Your task to perform on an android device: turn on airplane mode Image 0: 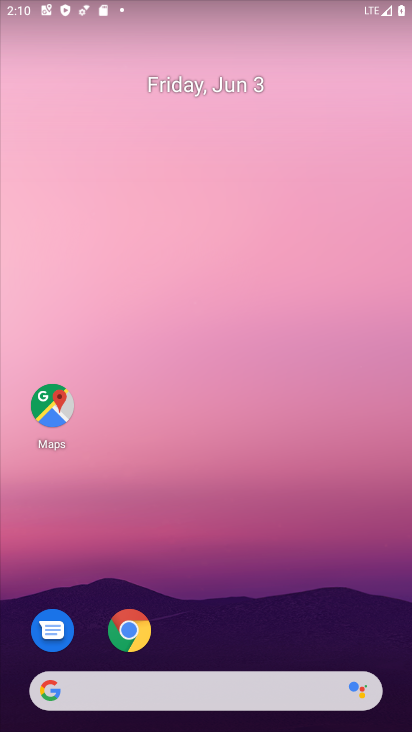
Step 0: drag from (227, 727) to (220, 13)
Your task to perform on an android device: turn on airplane mode Image 1: 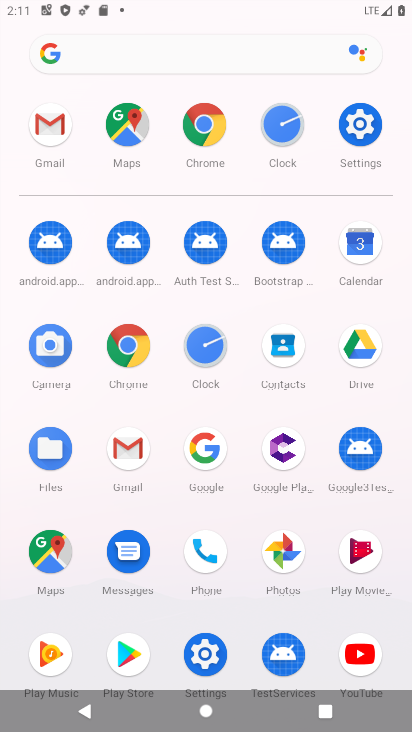
Step 1: click (358, 126)
Your task to perform on an android device: turn on airplane mode Image 2: 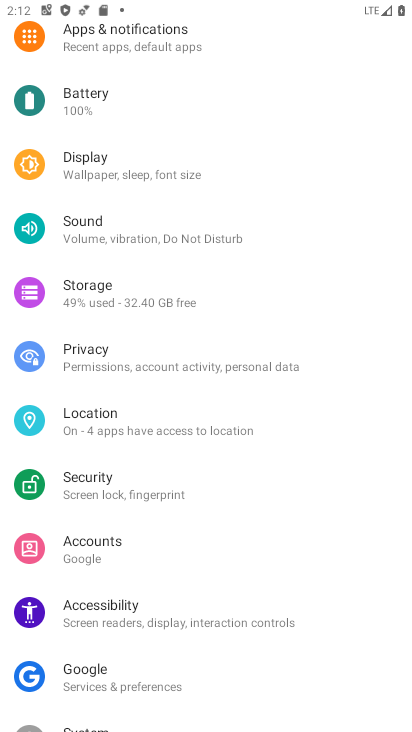
Step 2: drag from (288, 117) to (313, 549)
Your task to perform on an android device: turn on airplane mode Image 3: 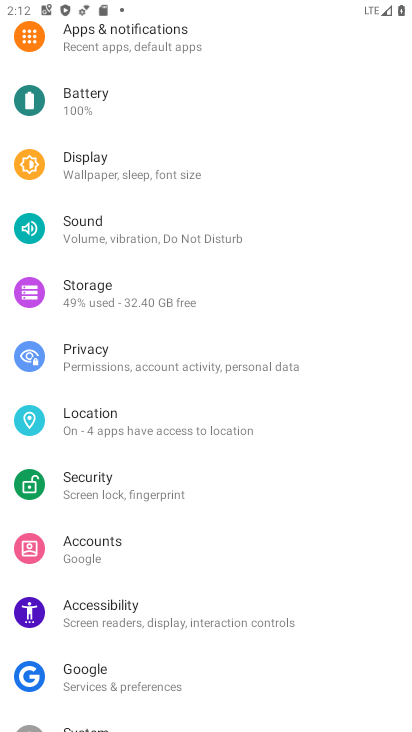
Step 3: drag from (317, 127) to (314, 531)
Your task to perform on an android device: turn on airplane mode Image 4: 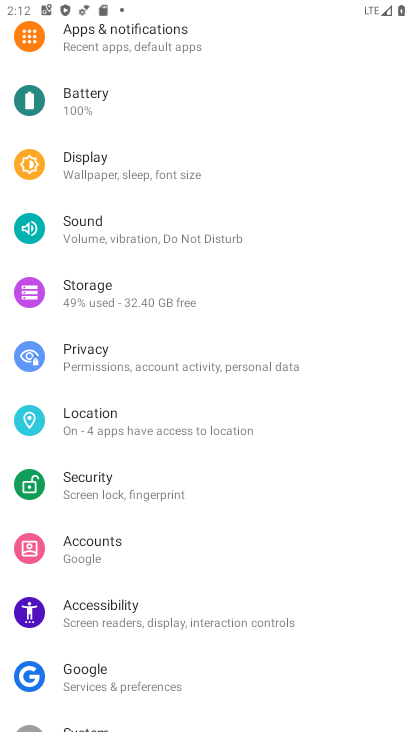
Step 4: drag from (233, 139) to (242, 434)
Your task to perform on an android device: turn on airplane mode Image 5: 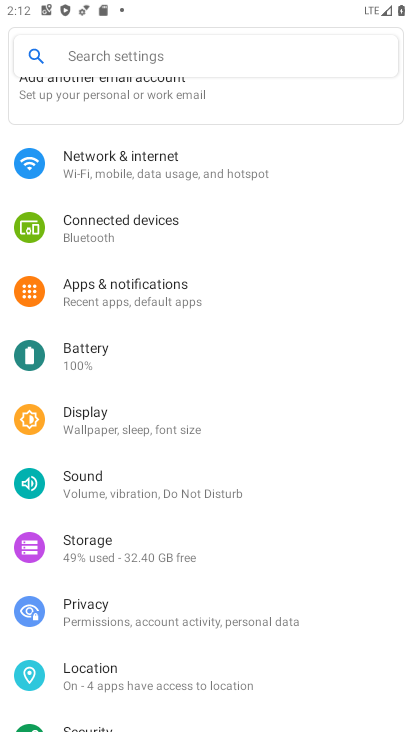
Step 5: click (144, 167)
Your task to perform on an android device: turn on airplane mode Image 6: 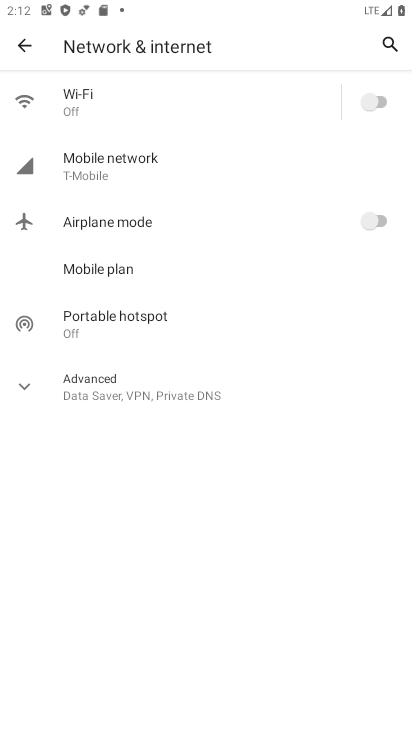
Step 6: click (384, 223)
Your task to perform on an android device: turn on airplane mode Image 7: 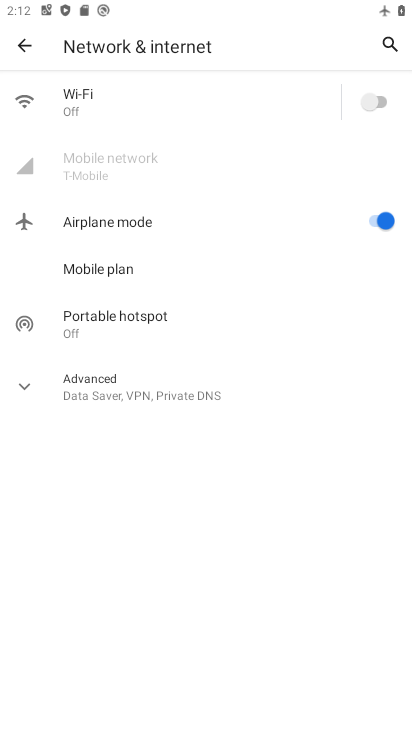
Step 7: task complete